Your task to perform on an android device: toggle priority inbox in the gmail app Image 0: 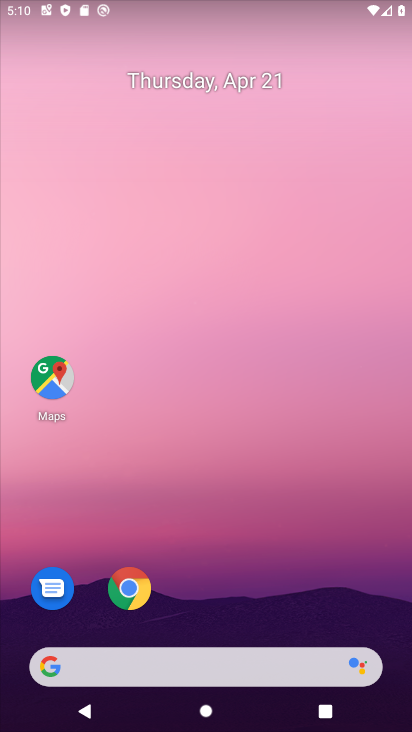
Step 0: drag from (225, 532) to (330, 31)
Your task to perform on an android device: toggle priority inbox in the gmail app Image 1: 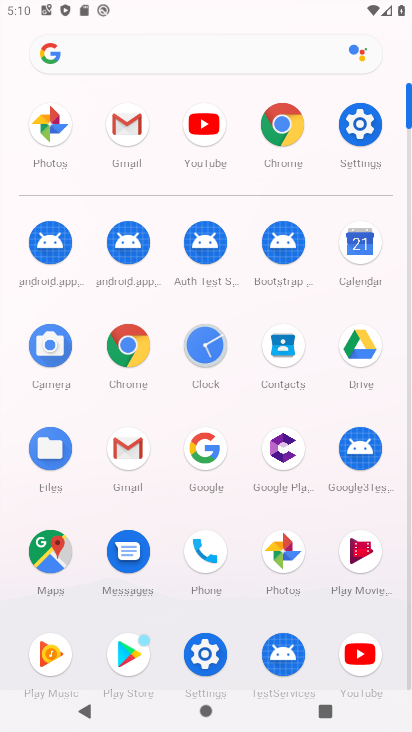
Step 1: click (126, 125)
Your task to perform on an android device: toggle priority inbox in the gmail app Image 2: 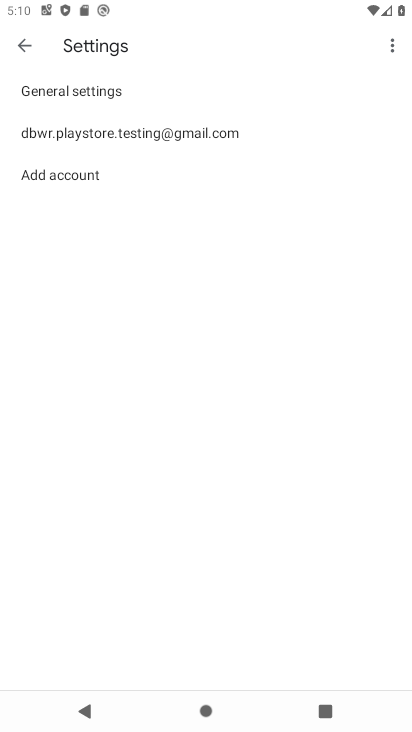
Step 2: click (93, 134)
Your task to perform on an android device: toggle priority inbox in the gmail app Image 3: 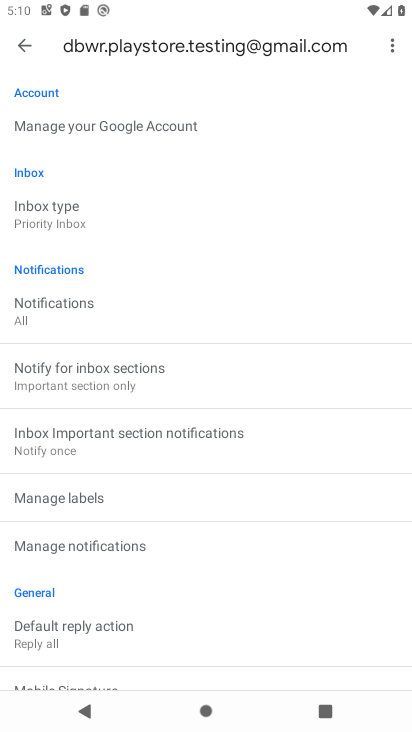
Step 3: click (99, 206)
Your task to perform on an android device: toggle priority inbox in the gmail app Image 4: 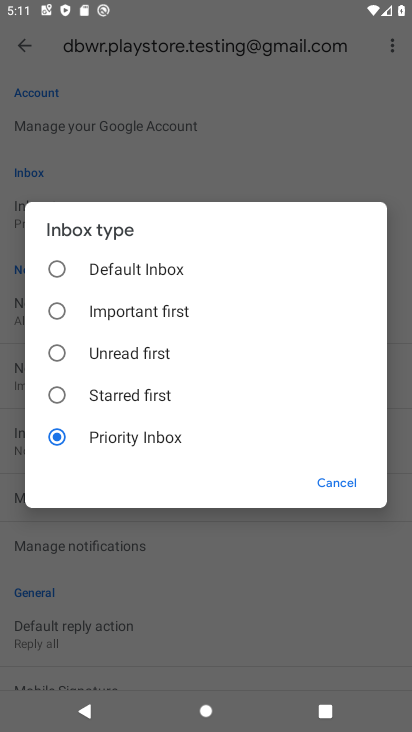
Step 4: click (60, 433)
Your task to perform on an android device: toggle priority inbox in the gmail app Image 5: 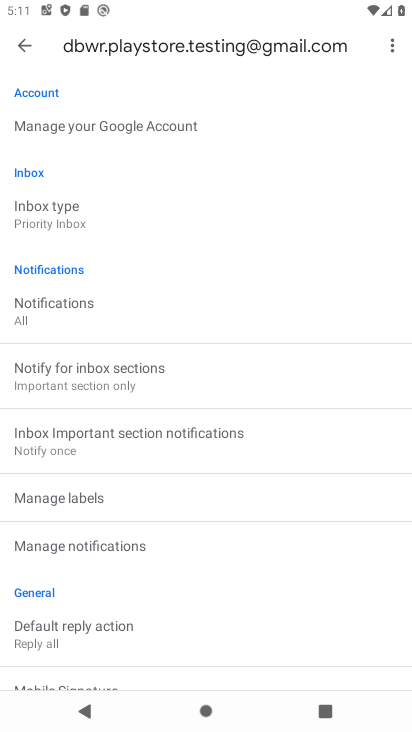
Step 5: task complete